Your task to perform on an android device: turn on bluetooth scan Image 0: 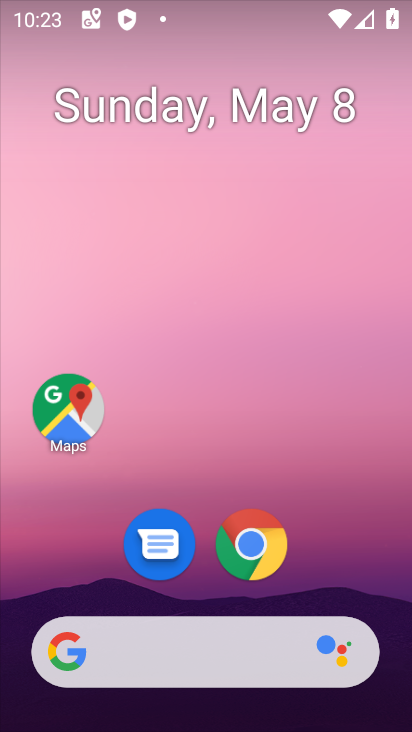
Step 0: drag from (355, 548) to (401, 93)
Your task to perform on an android device: turn on bluetooth scan Image 1: 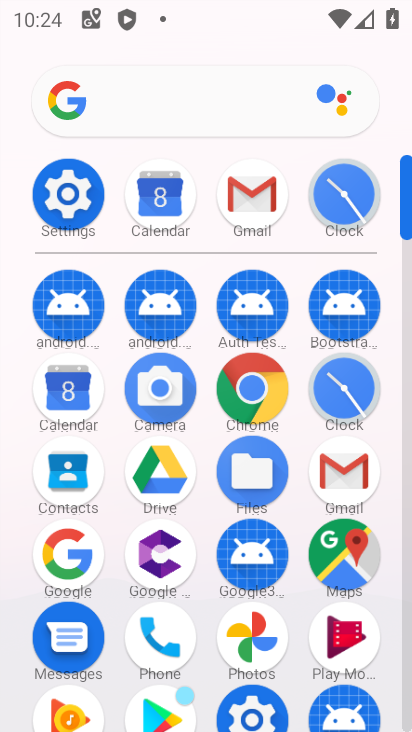
Step 1: click (269, 692)
Your task to perform on an android device: turn on bluetooth scan Image 2: 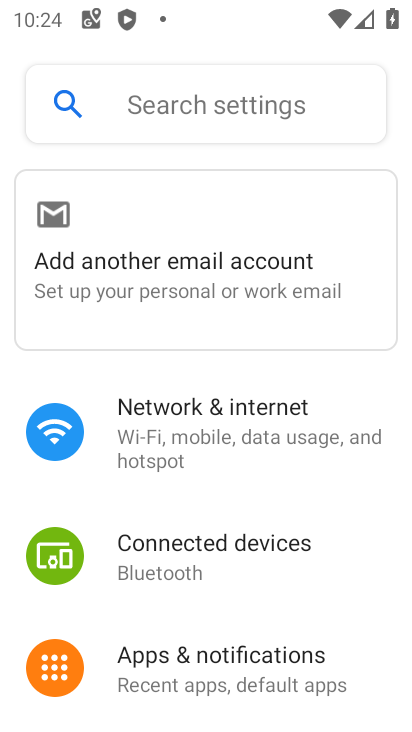
Step 2: drag from (261, 618) to (283, 185)
Your task to perform on an android device: turn on bluetooth scan Image 3: 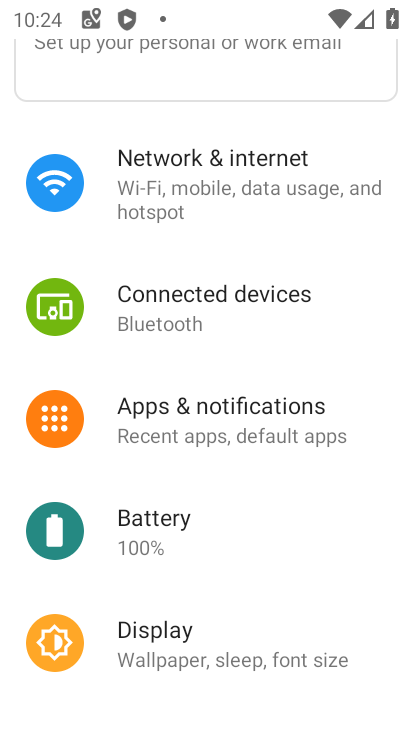
Step 3: drag from (268, 638) to (271, 299)
Your task to perform on an android device: turn on bluetooth scan Image 4: 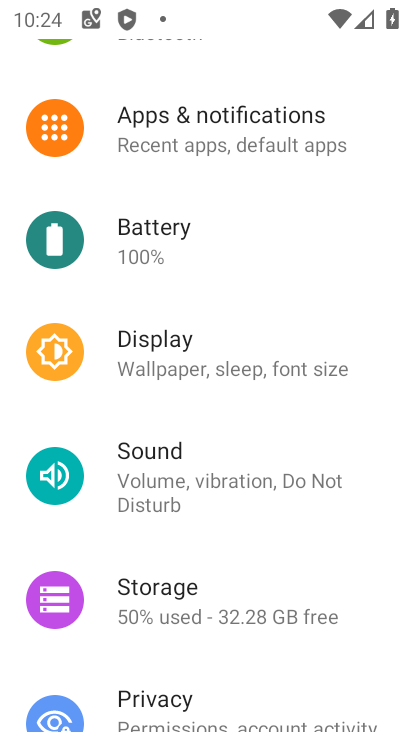
Step 4: drag from (256, 702) to (261, 362)
Your task to perform on an android device: turn on bluetooth scan Image 5: 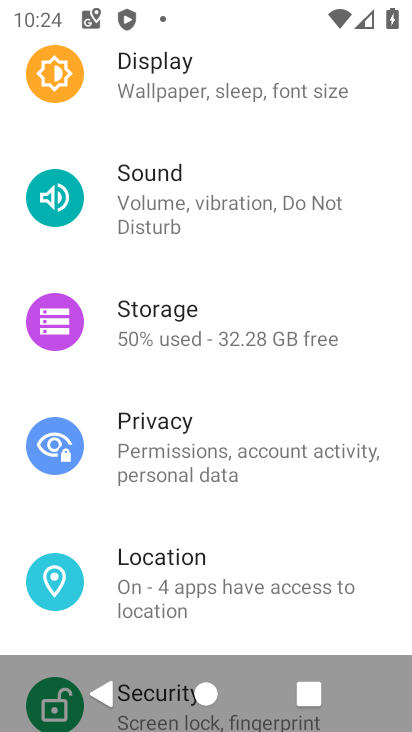
Step 5: drag from (267, 636) to (290, 351)
Your task to perform on an android device: turn on bluetooth scan Image 6: 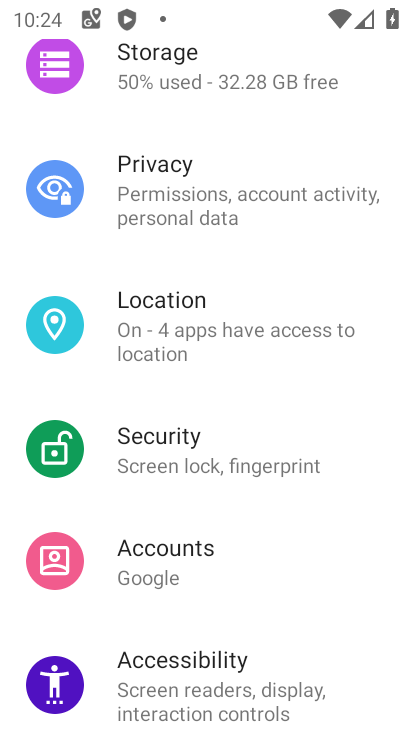
Step 6: drag from (249, 595) to (263, 417)
Your task to perform on an android device: turn on bluetooth scan Image 7: 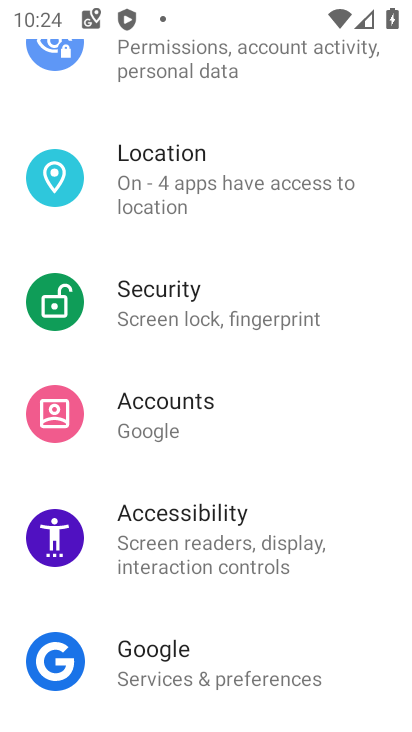
Step 7: click (269, 167)
Your task to perform on an android device: turn on bluetooth scan Image 8: 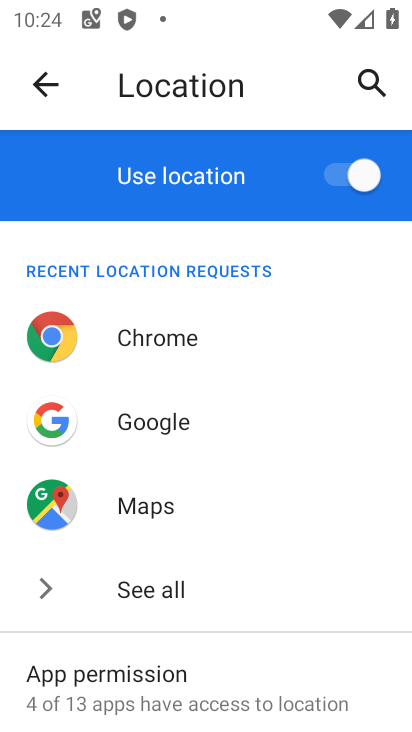
Step 8: drag from (269, 673) to (302, 328)
Your task to perform on an android device: turn on bluetooth scan Image 9: 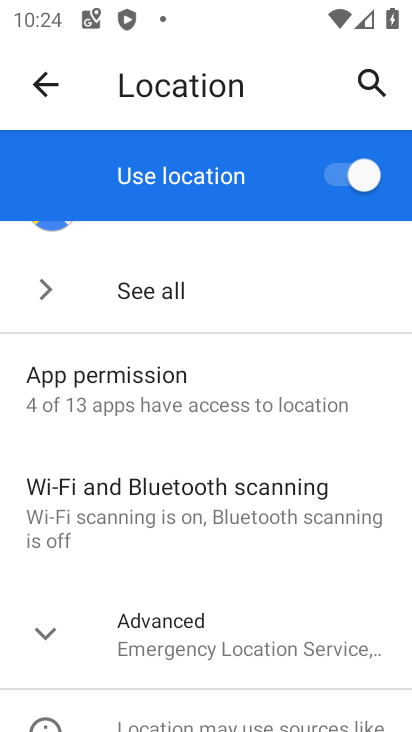
Step 9: click (239, 516)
Your task to perform on an android device: turn on bluetooth scan Image 10: 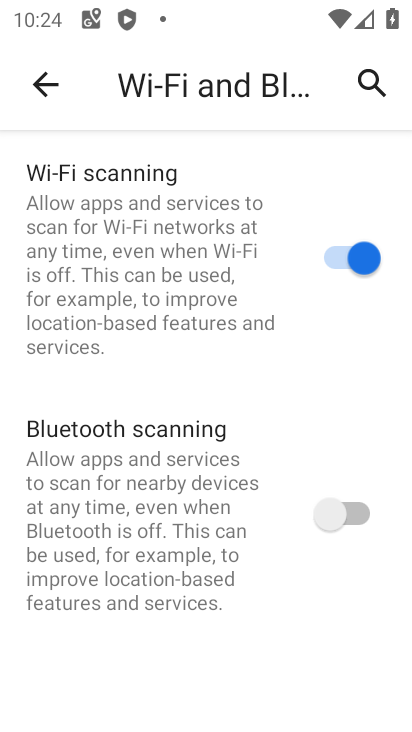
Step 10: click (306, 515)
Your task to perform on an android device: turn on bluetooth scan Image 11: 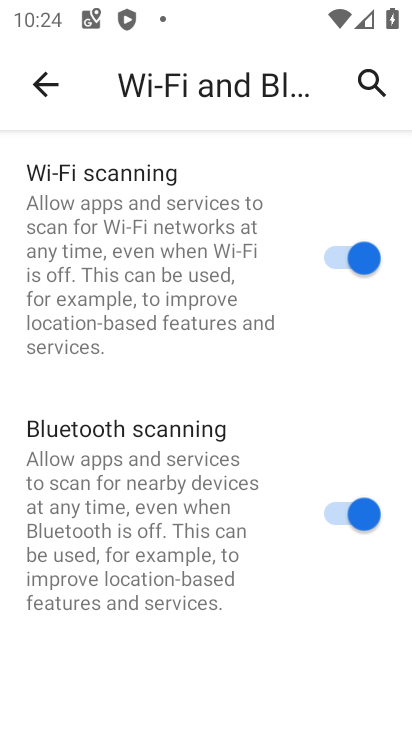
Step 11: task complete